Your task to perform on an android device: change notification settings in the gmail app Image 0: 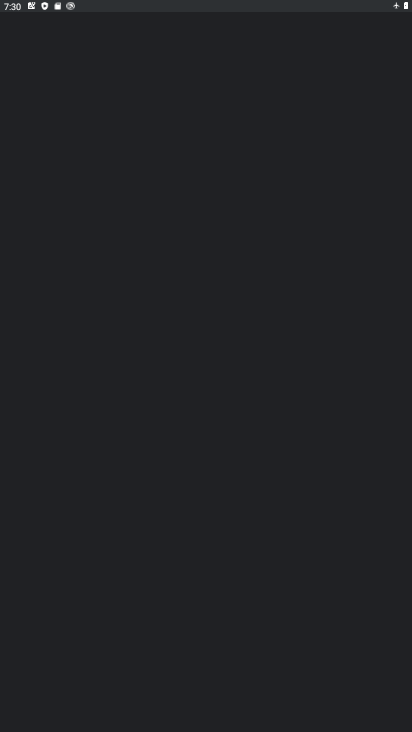
Step 0: drag from (375, 662) to (238, 23)
Your task to perform on an android device: change notification settings in the gmail app Image 1: 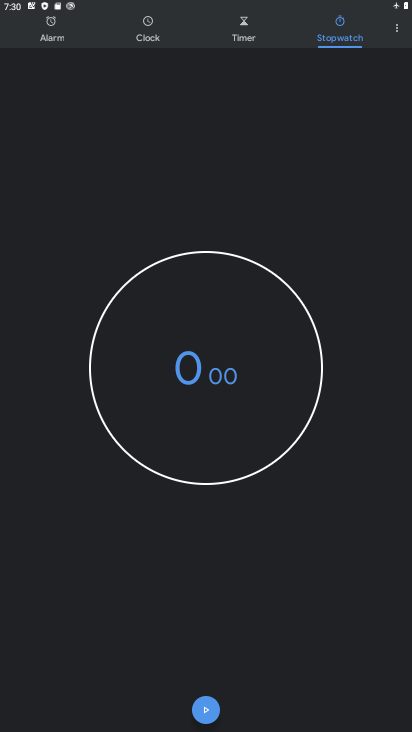
Step 1: press home button
Your task to perform on an android device: change notification settings in the gmail app Image 2: 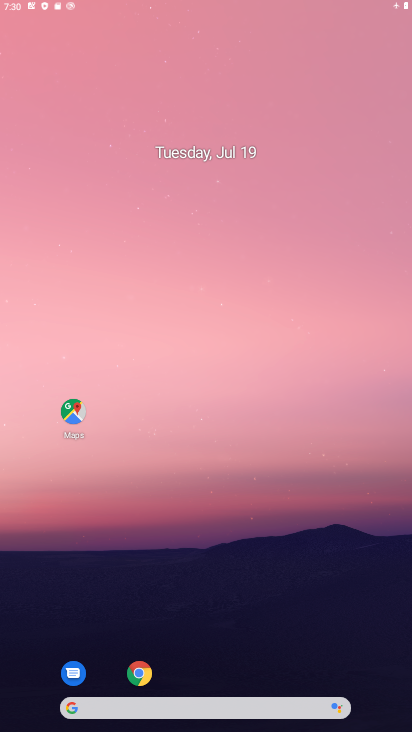
Step 2: drag from (368, 713) to (238, 10)
Your task to perform on an android device: change notification settings in the gmail app Image 3: 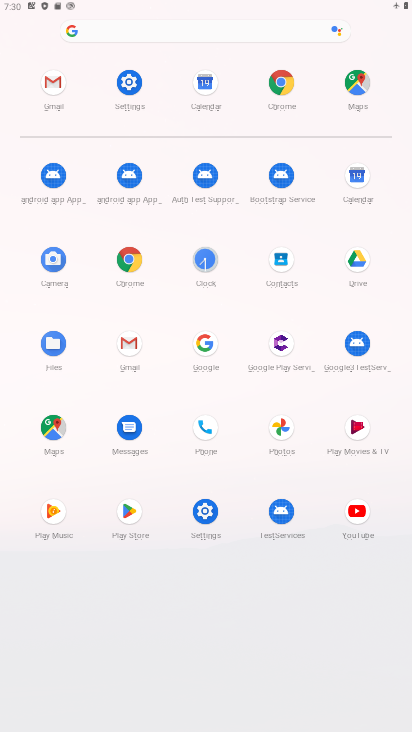
Step 3: click (130, 349)
Your task to perform on an android device: change notification settings in the gmail app Image 4: 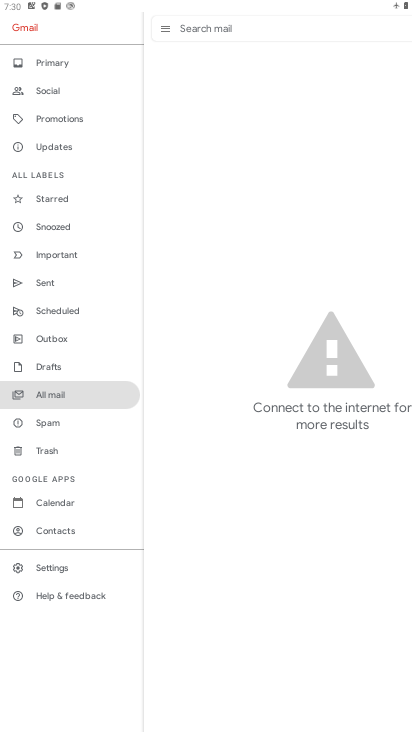
Step 4: click (73, 569)
Your task to perform on an android device: change notification settings in the gmail app Image 5: 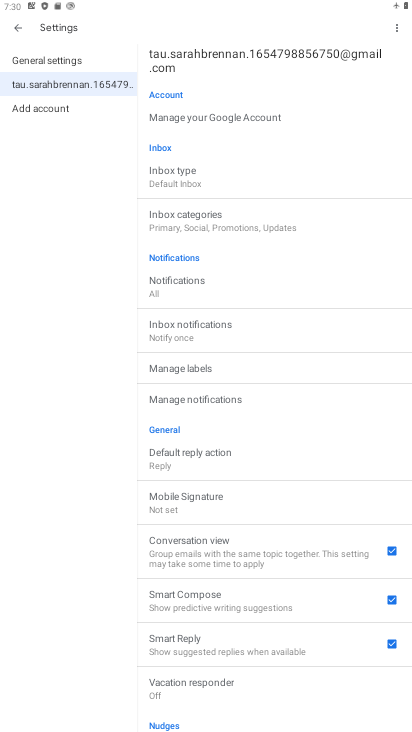
Step 5: click (178, 280)
Your task to perform on an android device: change notification settings in the gmail app Image 6: 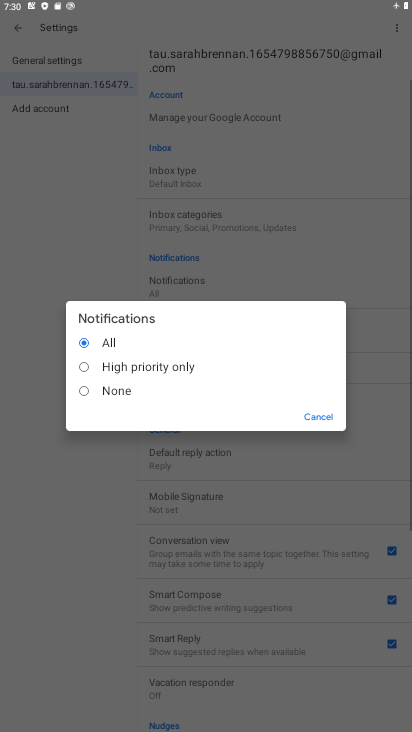
Step 6: click (92, 390)
Your task to perform on an android device: change notification settings in the gmail app Image 7: 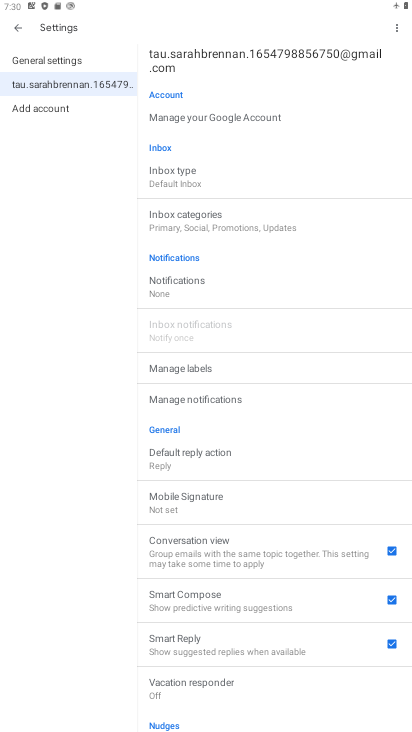
Step 7: task complete